Your task to perform on an android device: Find coffee shops on Maps Image 0: 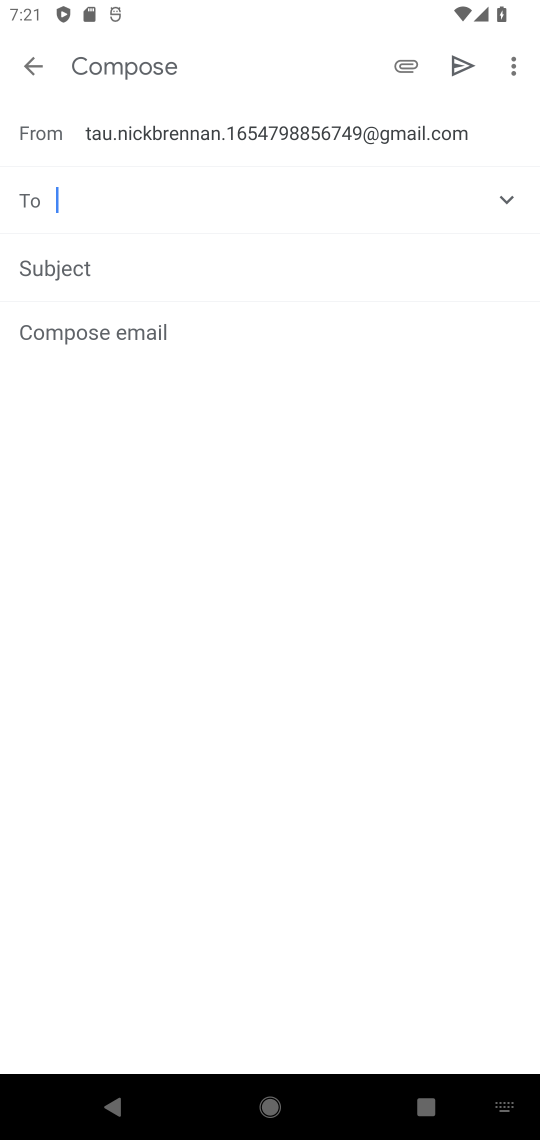
Step 0: press home button
Your task to perform on an android device: Find coffee shops on Maps Image 1: 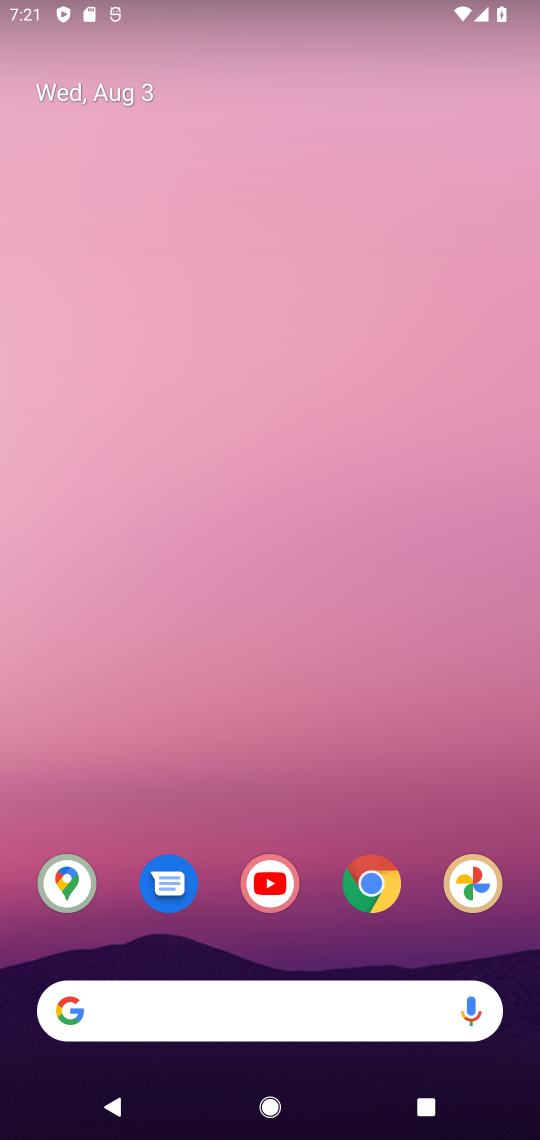
Step 1: drag from (438, 822) to (363, 177)
Your task to perform on an android device: Find coffee shops on Maps Image 2: 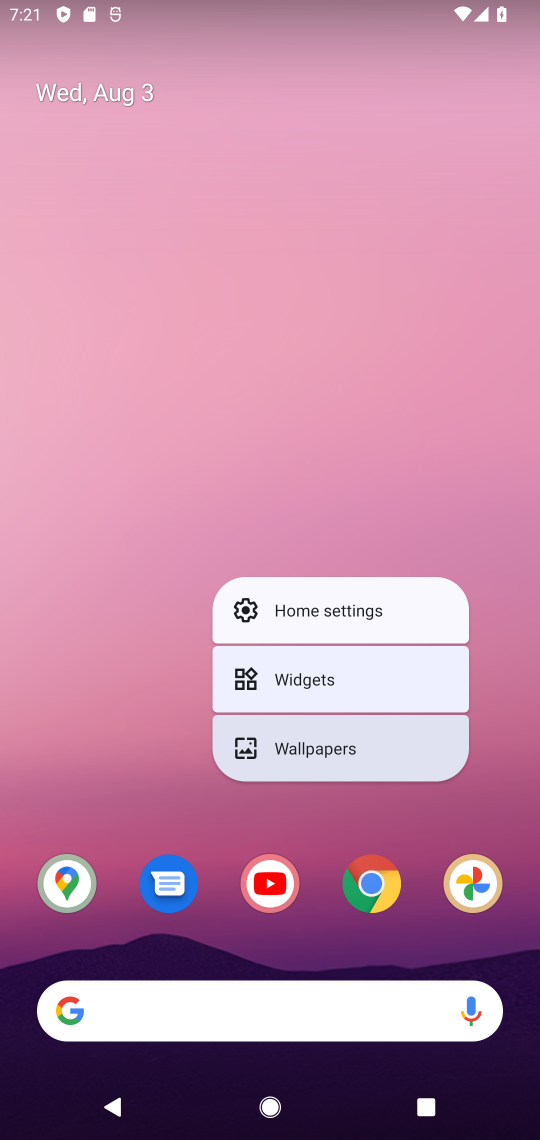
Step 2: click (525, 909)
Your task to perform on an android device: Find coffee shops on Maps Image 3: 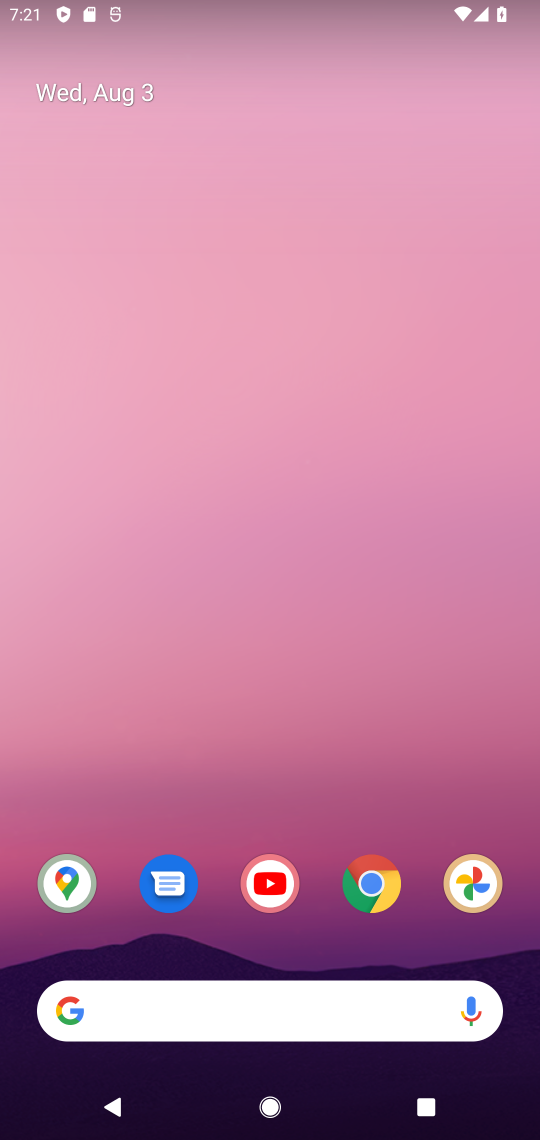
Step 3: drag from (525, 909) to (454, 246)
Your task to perform on an android device: Find coffee shops on Maps Image 4: 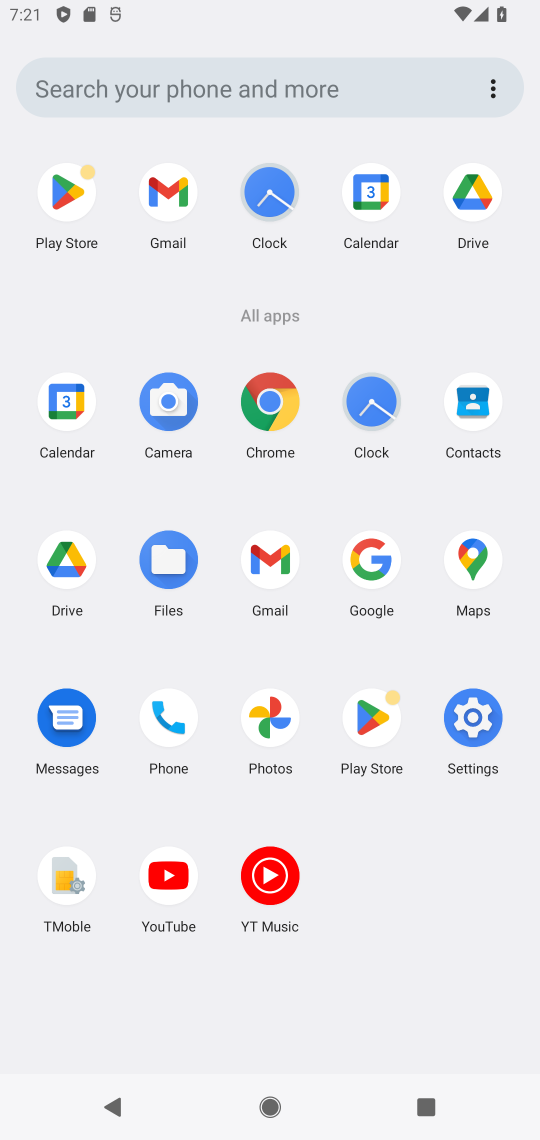
Step 4: click (475, 573)
Your task to perform on an android device: Find coffee shops on Maps Image 5: 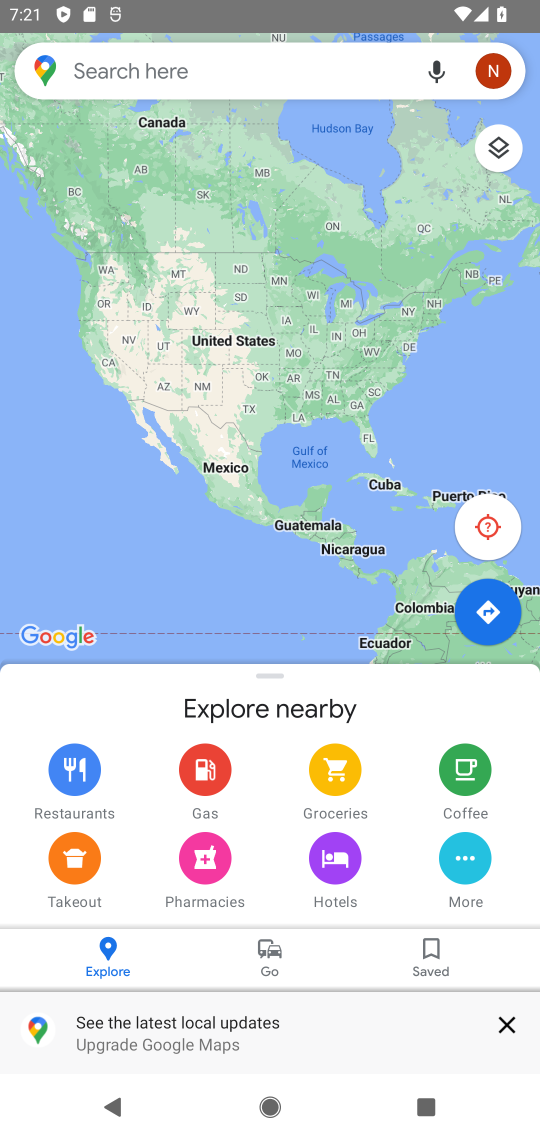
Step 5: click (248, 70)
Your task to perform on an android device: Find coffee shops on Maps Image 6: 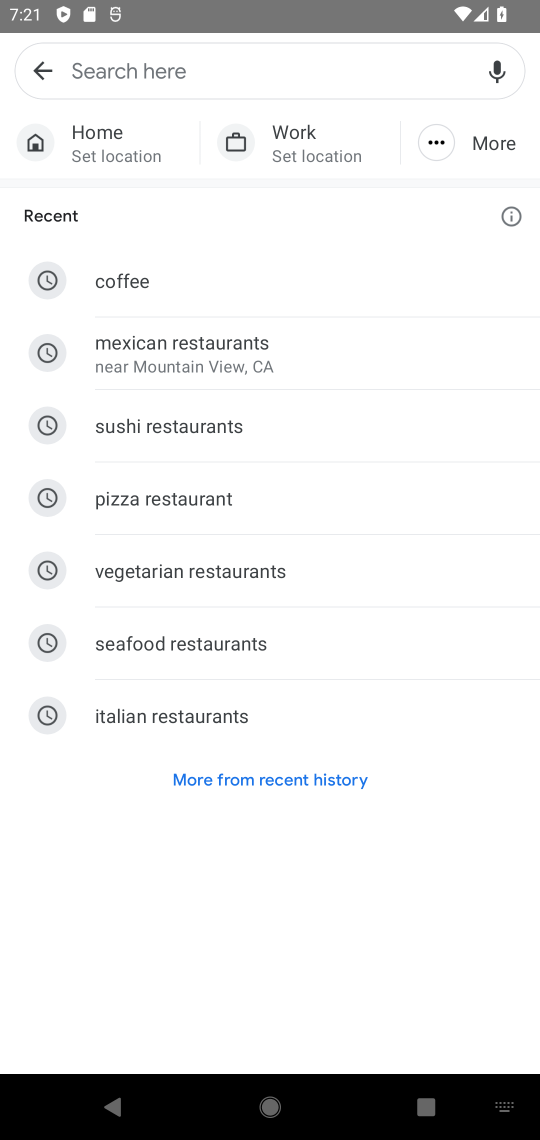
Step 6: type "coffee shops"
Your task to perform on an android device: Find coffee shops on Maps Image 7: 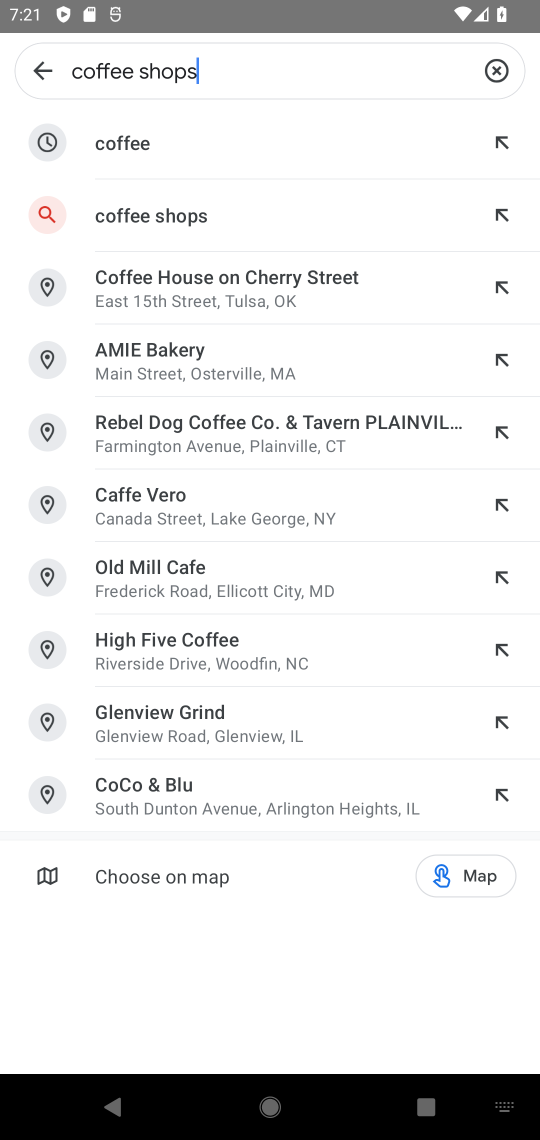
Step 7: click (211, 231)
Your task to perform on an android device: Find coffee shops on Maps Image 8: 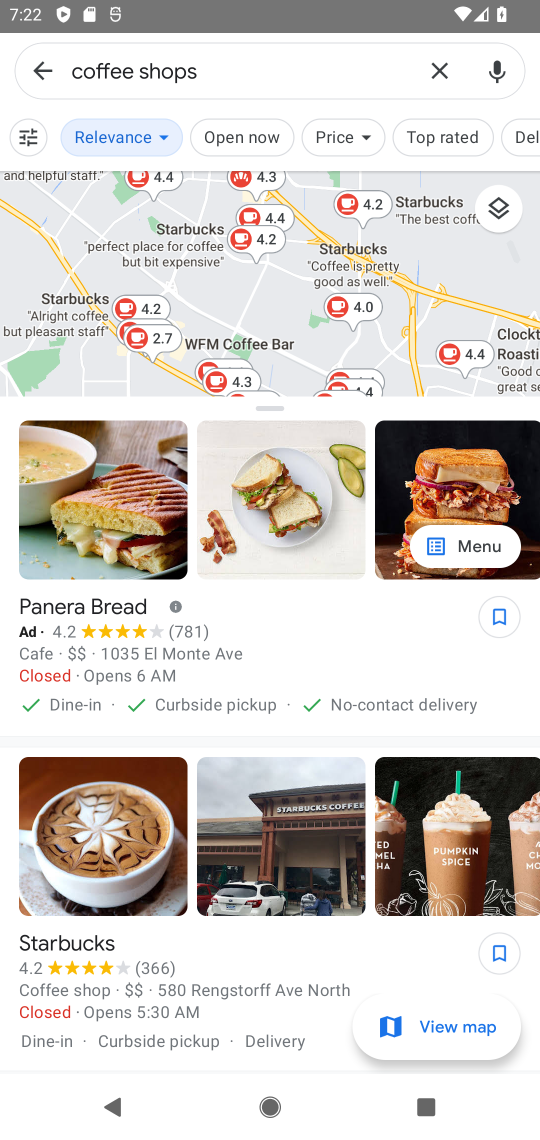
Step 8: task complete